Your task to perform on an android device: change keyboard looks Image 0: 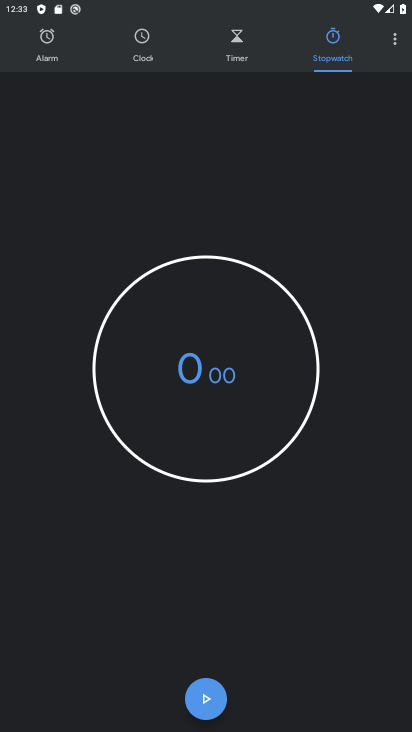
Step 0: press home button
Your task to perform on an android device: change keyboard looks Image 1: 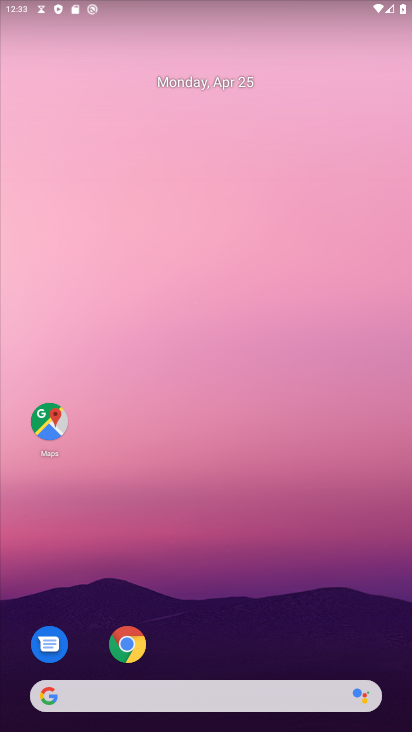
Step 1: drag from (197, 567) to (187, 39)
Your task to perform on an android device: change keyboard looks Image 2: 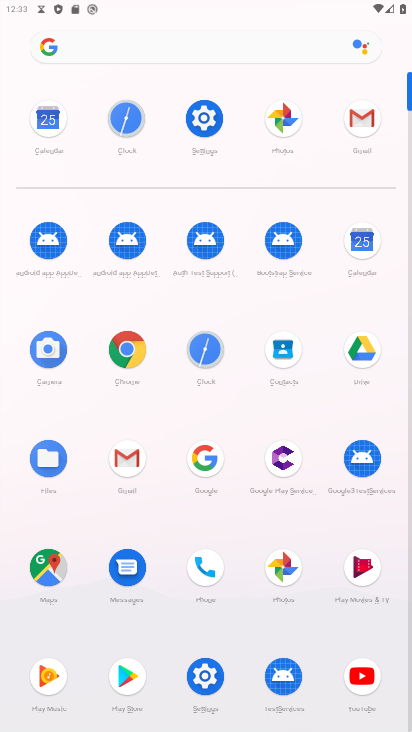
Step 2: click (201, 117)
Your task to perform on an android device: change keyboard looks Image 3: 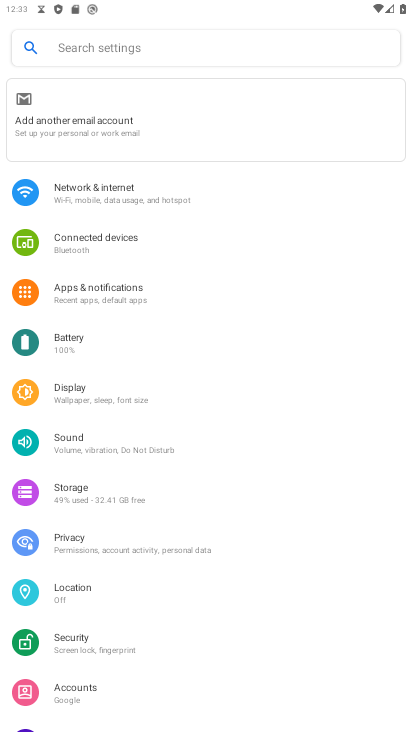
Step 3: drag from (309, 663) to (310, 397)
Your task to perform on an android device: change keyboard looks Image 4: 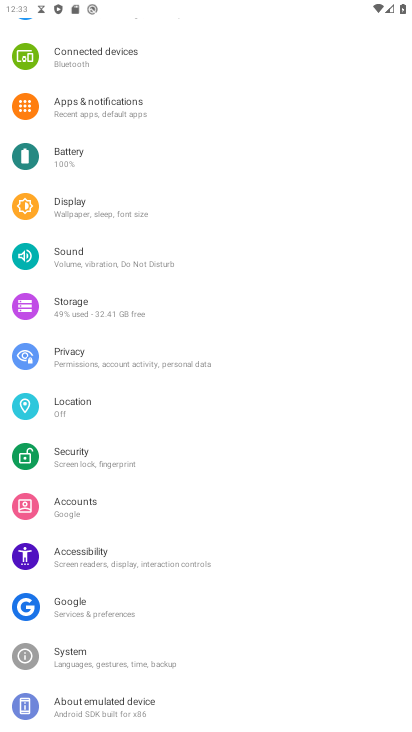
Step 4: click (76, 659)
Your task to perform on an android device: change keyboard looks Image 5: 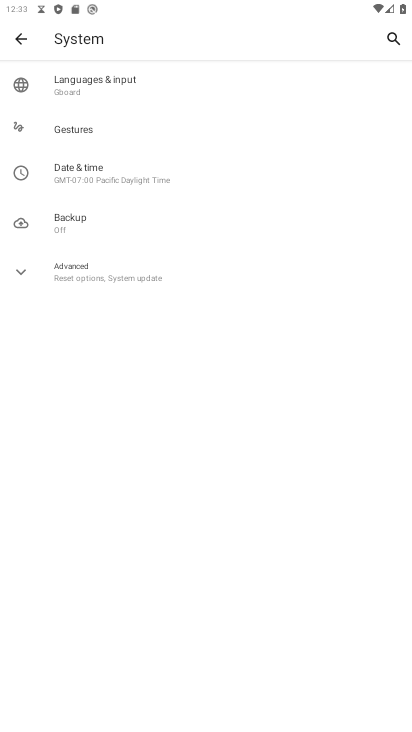
Step 5: click (69, 91)
Your task to perform on an android device: change keyboard looks Image 6: 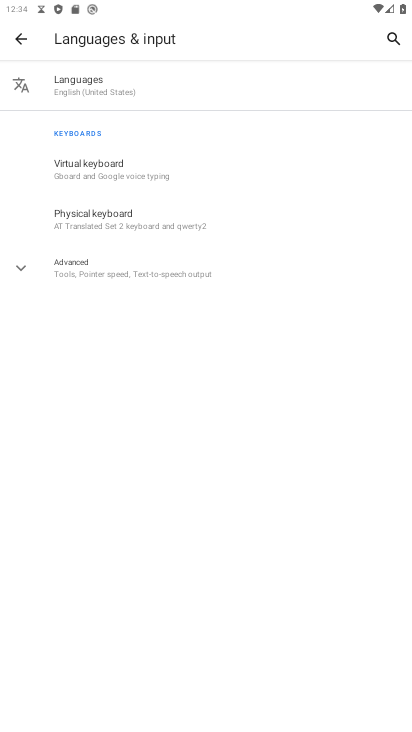
Step 6: click (103, 172)
Your task to perform on an android device: change keyboard looks Image 7: 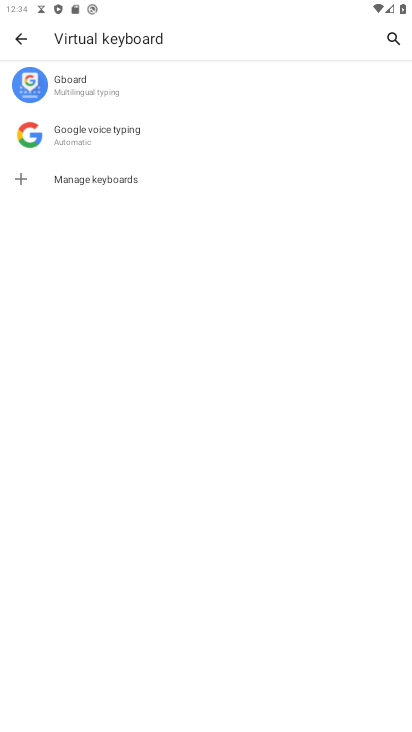
Step 7: click (61, 76)
Your task to perform on an android device: change keyboard looks Image 8: 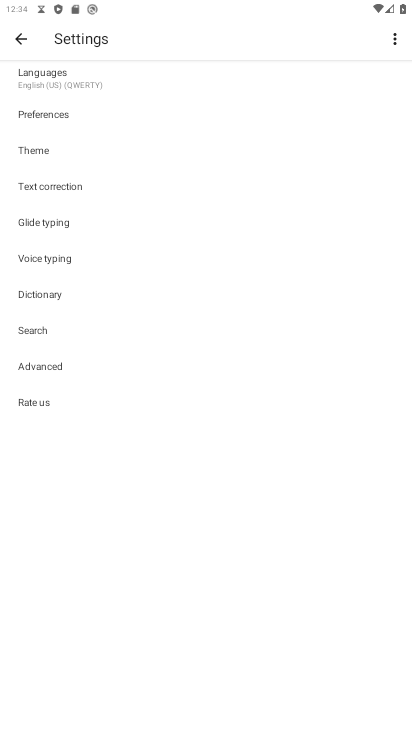
Step 8: click (30, 158)
Your task to perform on an android device: change keyboard looks Image 9: 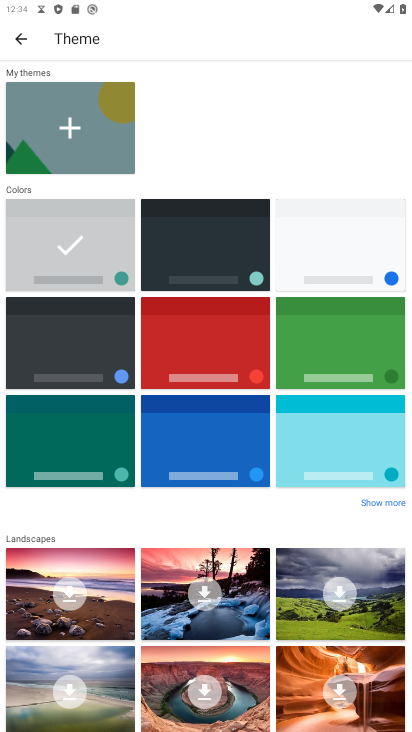
Step 9: click (203, 261)
Your task to perform on an android device: change keyboard looks Image 10: 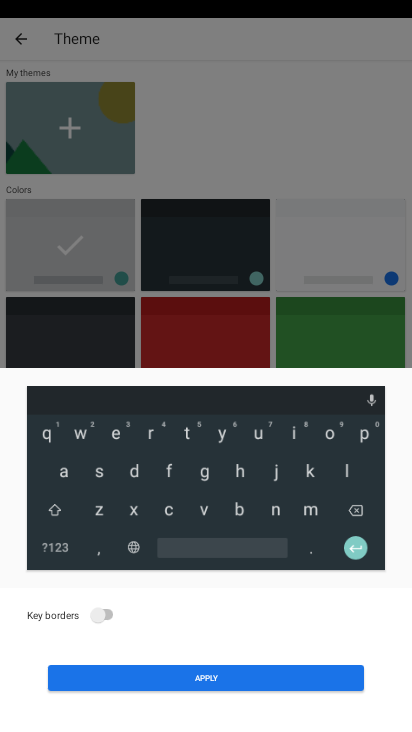
Step 10: click (100, 618)
Your task to perform on an android device: change keyboard looks Image 11: 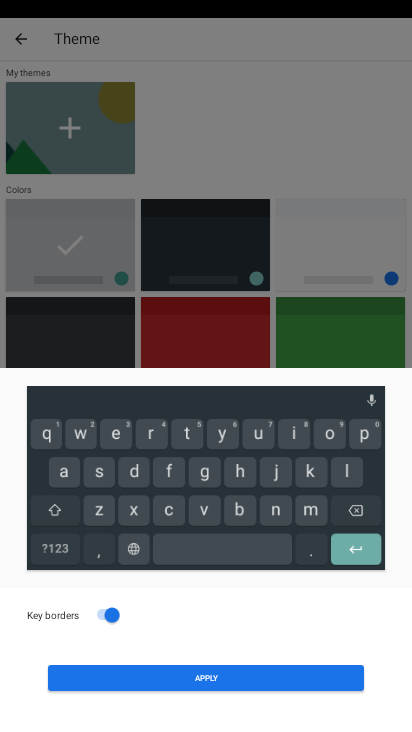
Step 11: click (190, 678)
Your task to perform on an android device: change keyboard looks Image 12: 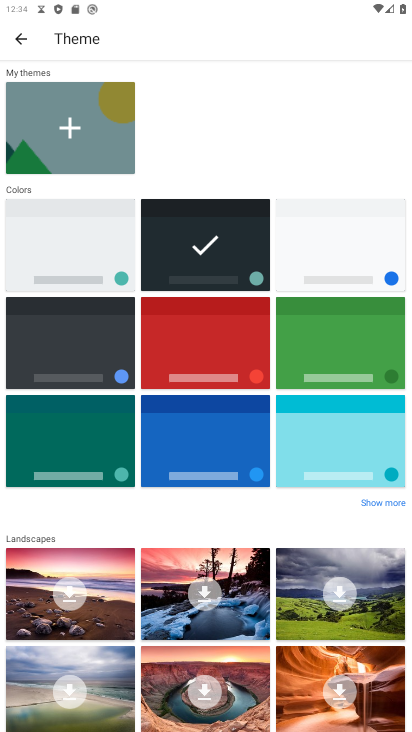
Step 12: task complete